Your task to perform on an android device: Open the calendar and show me this week's events Image 0: 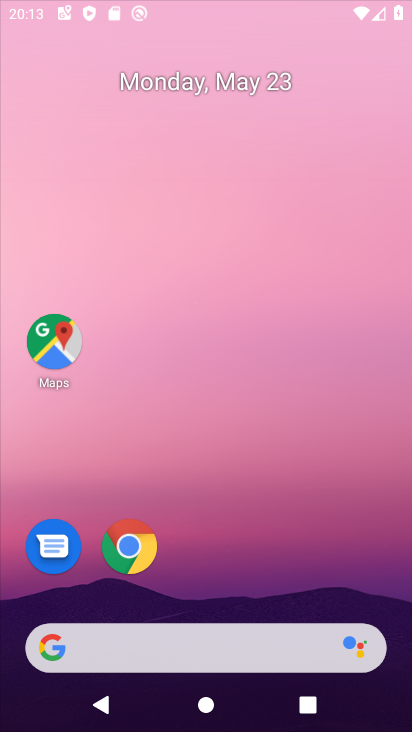
Step 0: drag from (381, 84) to (364, 142)
Your task to perform on an android device: Open the calendar and show me this week's events Image 1: 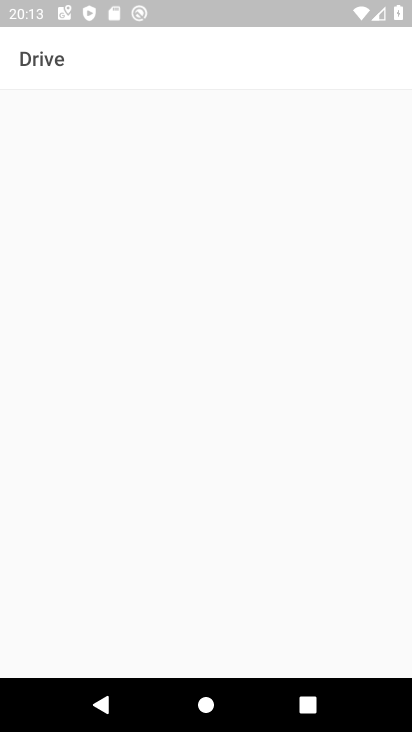
Step 1: press home button
Your task to perform on an android device: Open the calendar and show me this week's events Image 2: 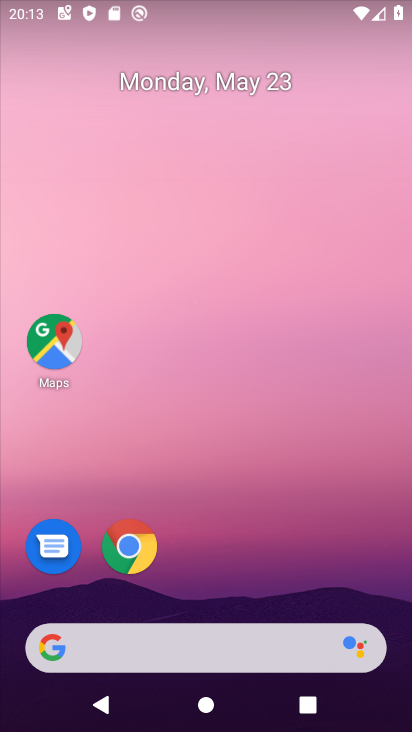
Step 2: drag from (372, 581) to (362, 147)
Your task to perform on an android device: Open the calendar and show me this week's events Image 3: 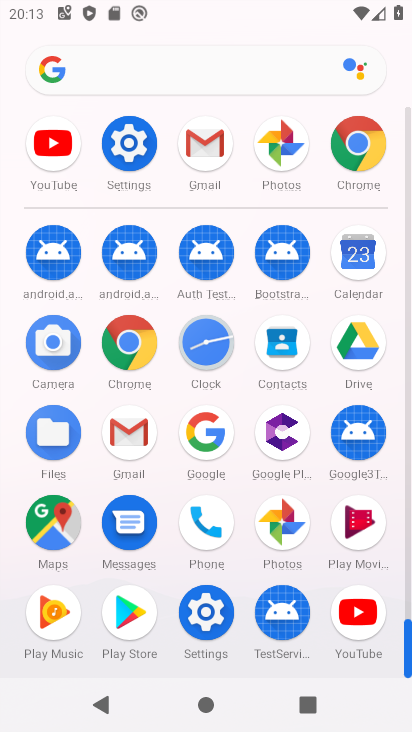
Step 3: click (364, 260)
Your task to perform on an android device: Open the calendar and show me this week's events Image 4: 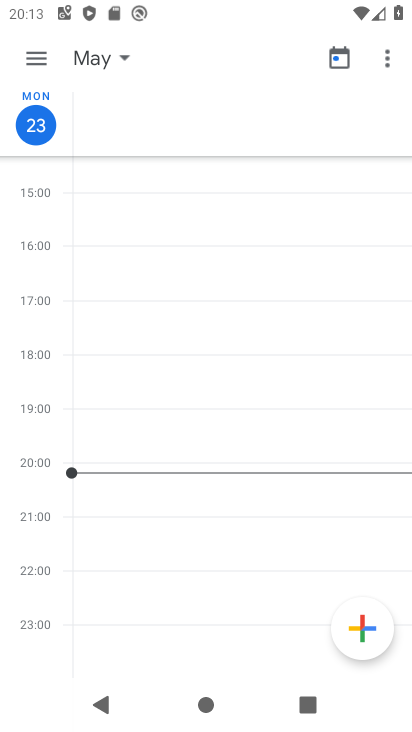
Step 4: click (43, 61)
Your task to perform on an android device: Open the calendar and show me this week's events Image 5: 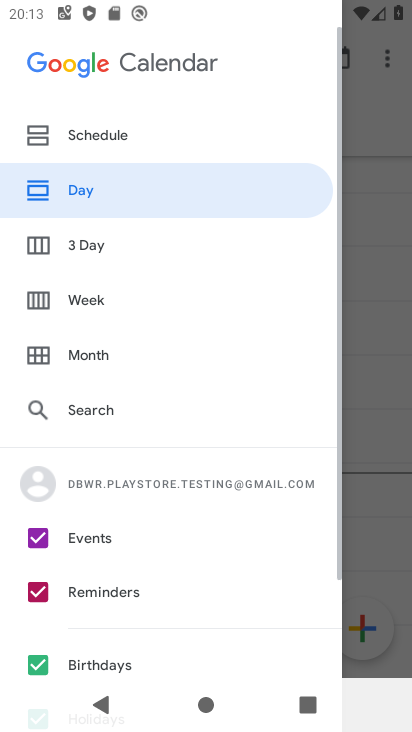
Step 5: click (117, 134)
Your task to perform on an android device: Open the calendar and show me this week's events Image 6: 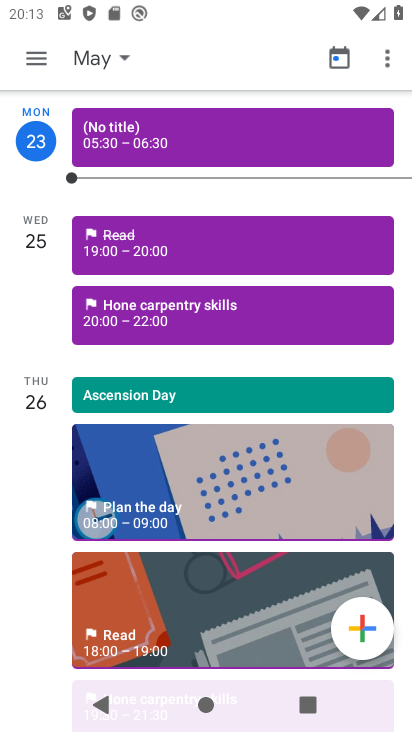
Step 6: task complete